Your task to perform on an android device: Open wifi settings Image 0: 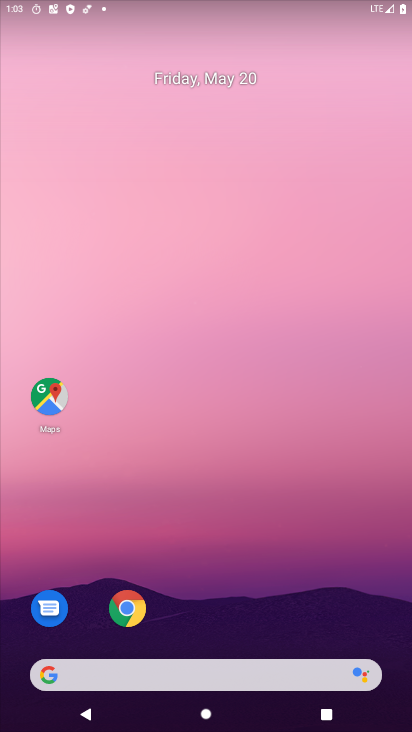
Step 0: drag from (264, 570) to (245, 177)
Your task to perform on an android device: Open wifi settings Image 1: 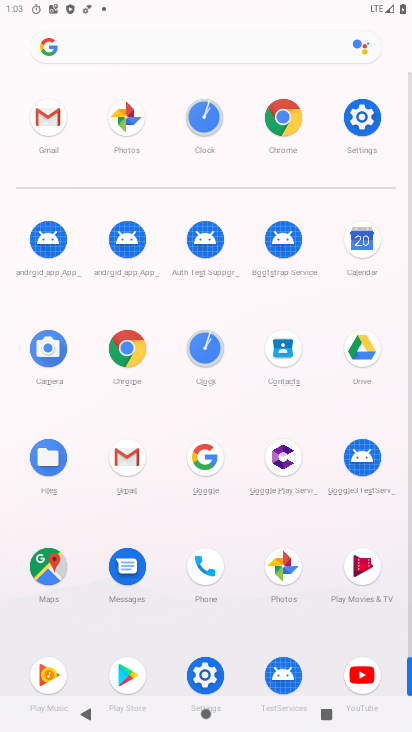
Step 1: click (204, 670)
Your task to perform on an android device: Open wifi settings Image 2: 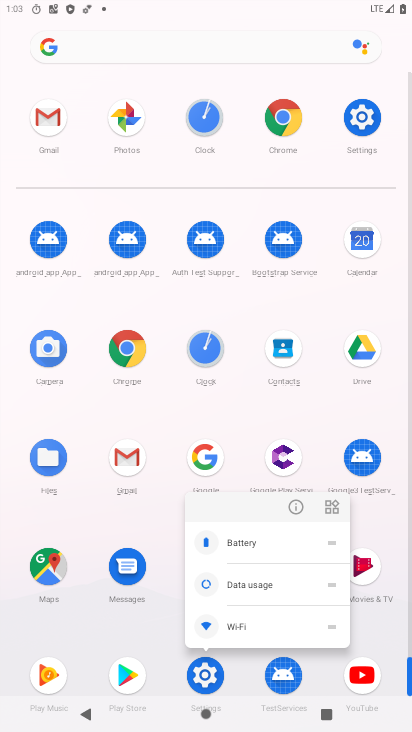
Step 2: click (210, 670)
Your task to perform on an android device: Open wifi settings Image 3: 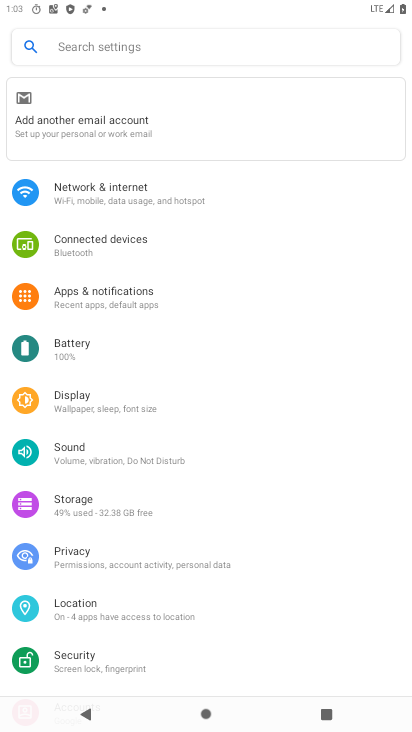
Step 3: click (160, 188)
Your task to perform on an android device: Open wifi settings Image 4: 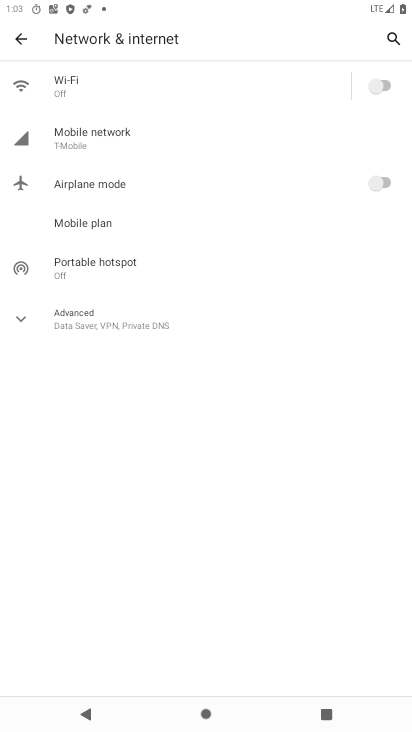
Step 4: click (104, 84)
Your task to perform on an android device: Open wifi settings Image 5: 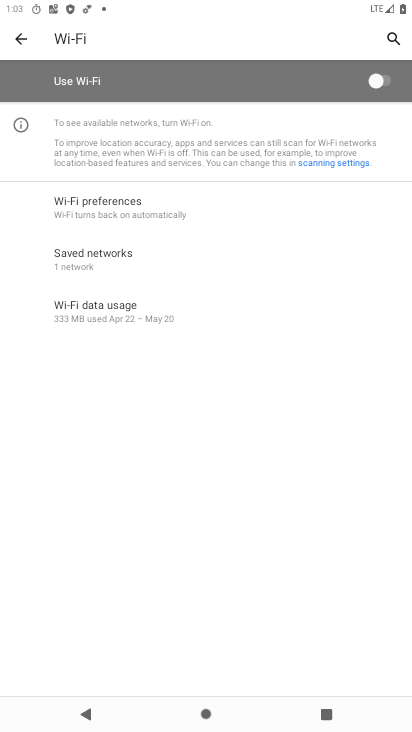
Step 5: task complete